Your task to perform on an android device: Open ESPN.com Image 0: 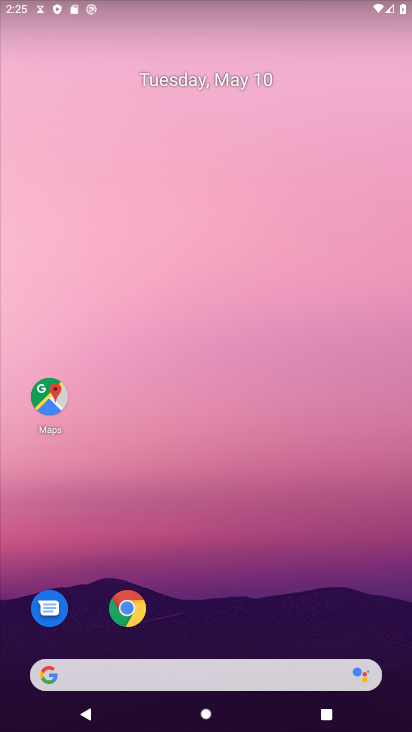
Step 0: click (138, 597)
Your task to perform on an android device: Open ESPN.com Image 1: 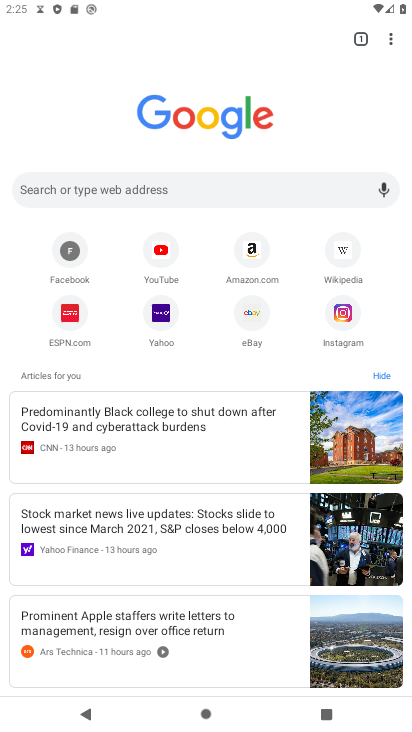
Step 1: click (61, 316)
Your task to perform on an android device: Open ESPN.com Image 2: 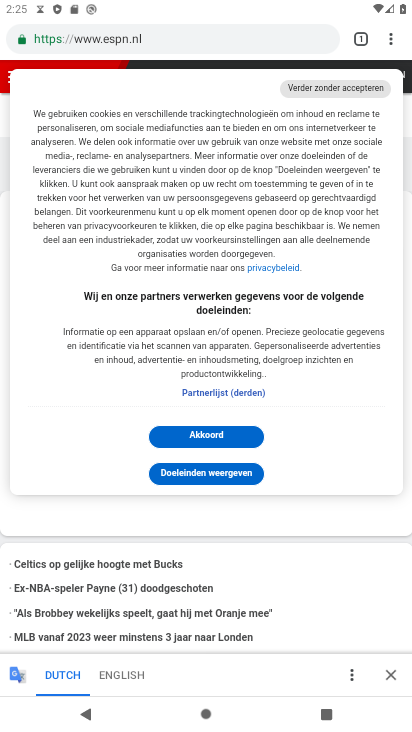
Step 2: task complete